Your task to perform on an android device: See recent photos Image 0: 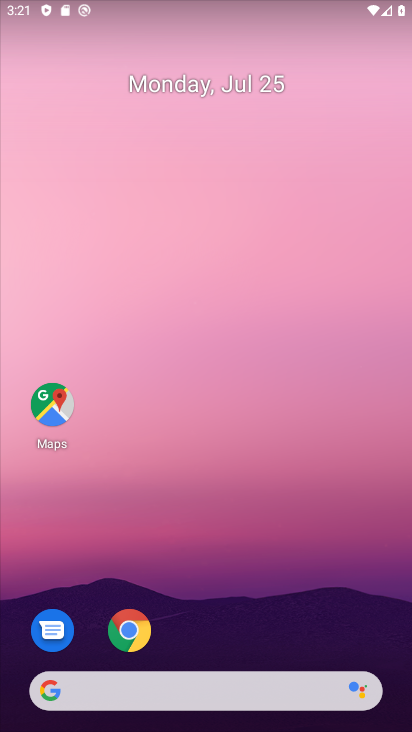
Step 0: drag from (227, 614) to (262, 149)
Your task to perform on an android device: See recent photos Image 1: 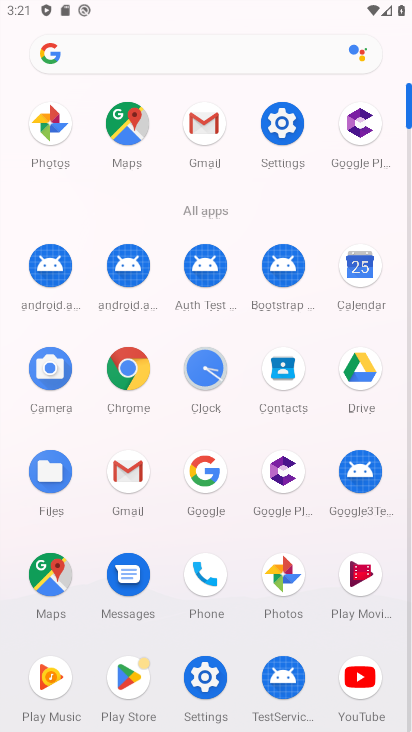
Step 1: click (286, 588)
Your task to perform on an android device: See recent photos Image 2: 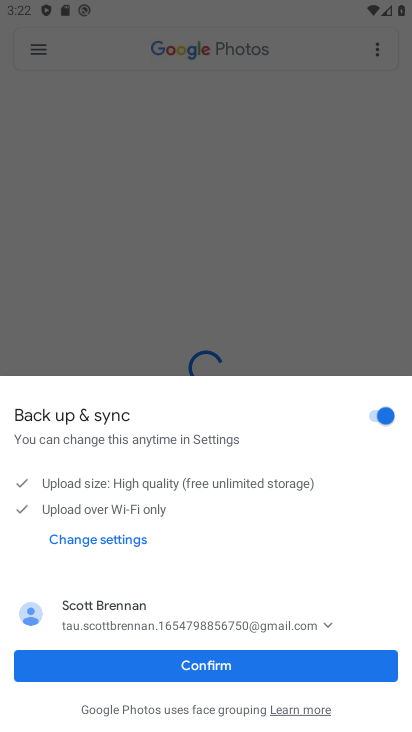
Step 2: click (236, 668)
Your task to perform on an android device: See recent photos Image 3: 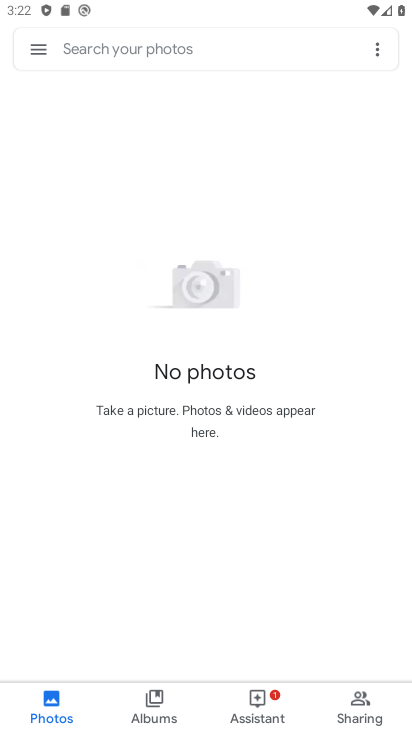
Step 3: task complete